Your task to perform on an android device: Clear the shopping cart on amazon. Image 0: 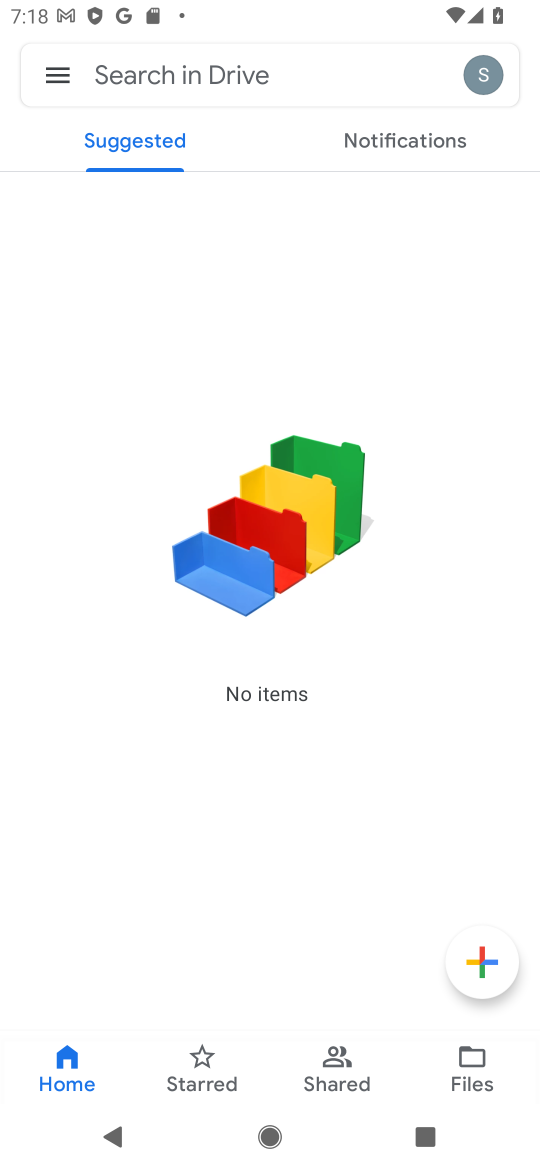
Step 0: press home button
Your task to perform on an android device: Clear the shopping cart on amazon. Image 1: 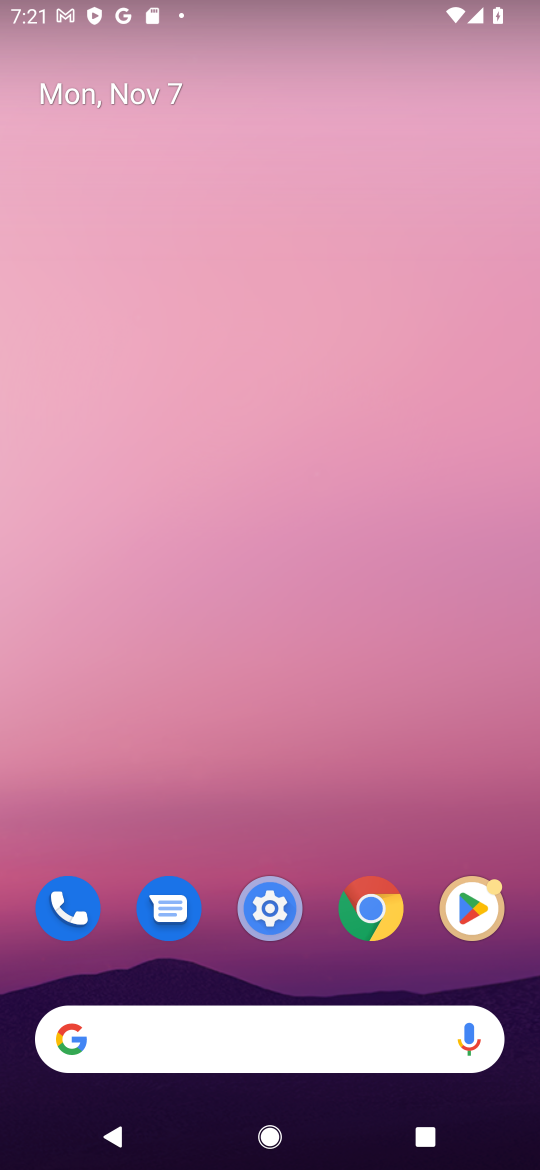
Step 1: click (226, 1049)
Your task to perform on an android device: Clear the shopping cart on amazon. Image 2: 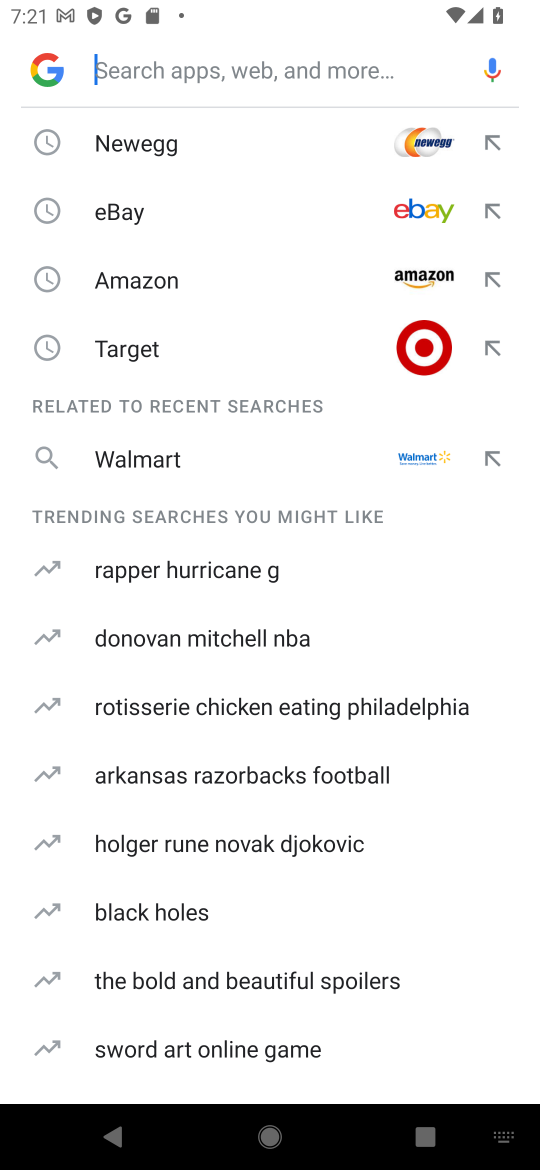
Step 2: click (181, 292)
Your task to perform on an android device: Clear the shopping cart on amazon. Image 3: 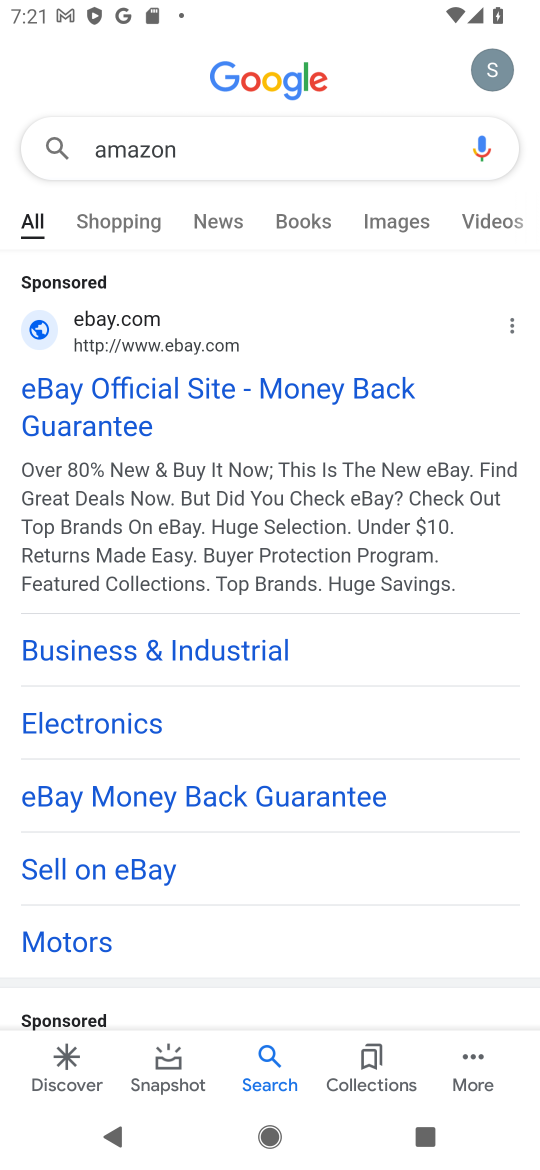
Step 3: click (120, 400)
Your task to perform on an android device: Clear the shopping cart on amazon. Image 4: 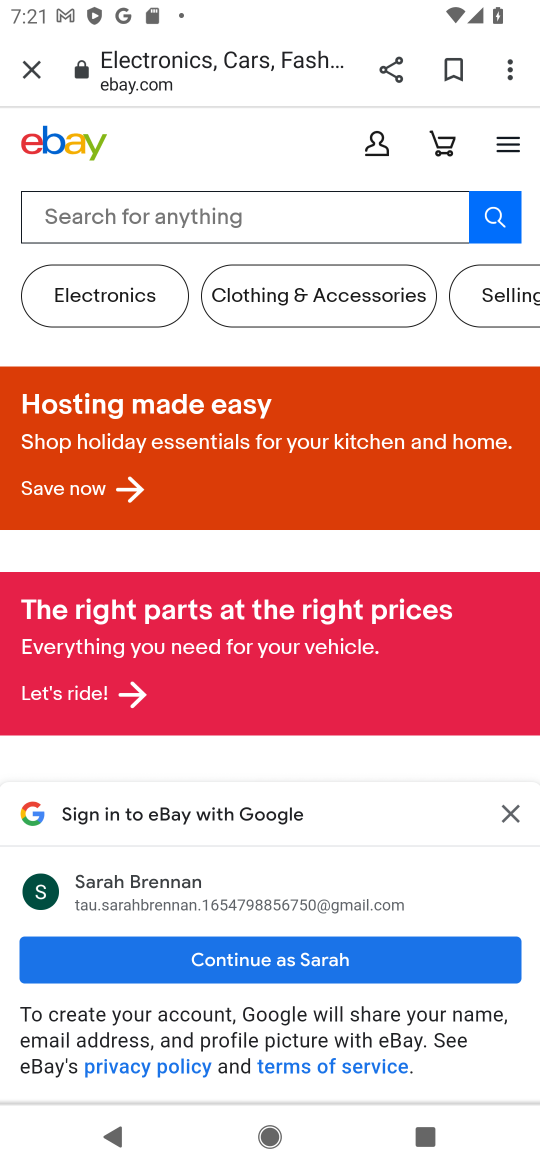
Step 4: click (441, 160)
Your task to perform on an android device: Clear the shopping cart on amazon. Image 5: 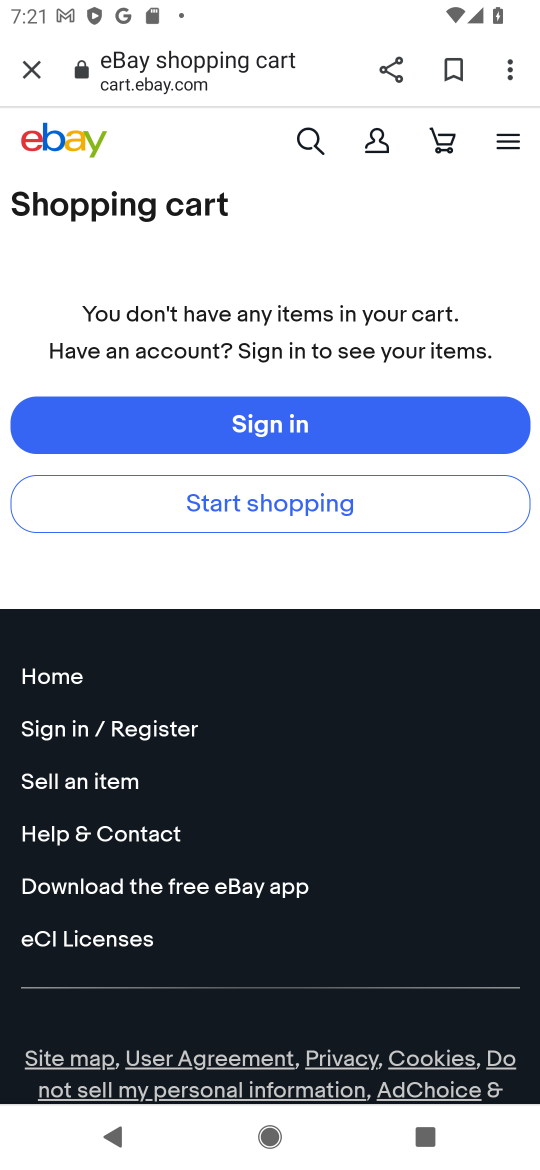
Step 5: task complete